Your task to perform on an android device: Go to location settings Image 0: 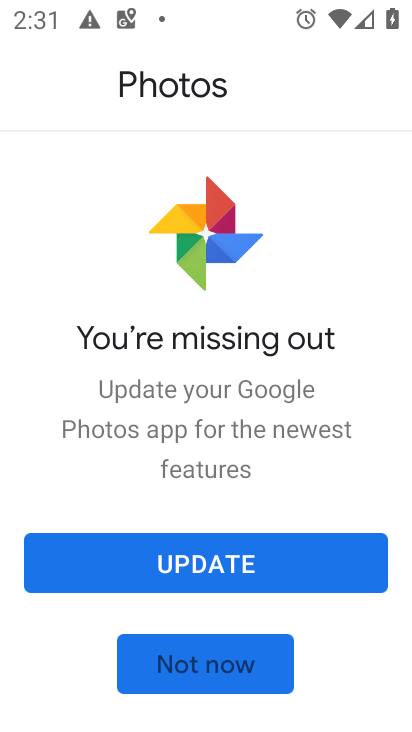
Step 0: press home button
Your task to perform on an android device: Go to location settings Image 1: 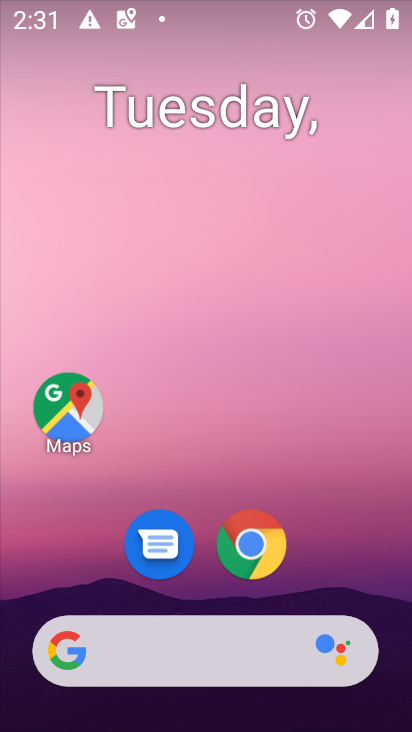
Step 1: drag from (320, 545) to (291, 47)
Your task to perform on an android device: Go to location settings Image 2: 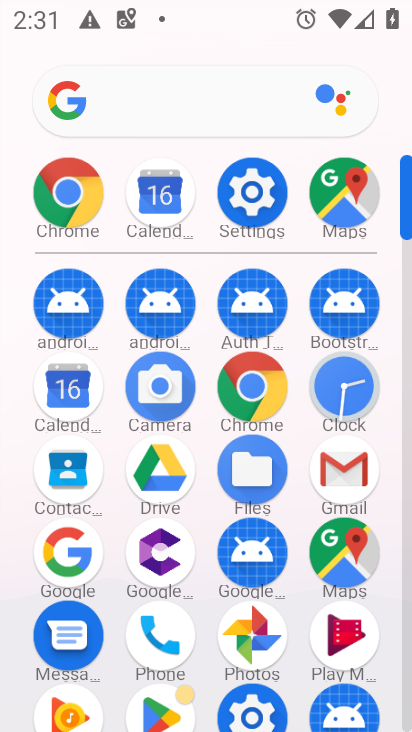
Step 2: click (253, 714)
Your task to perform on an android device: Go to location settings Image 3: 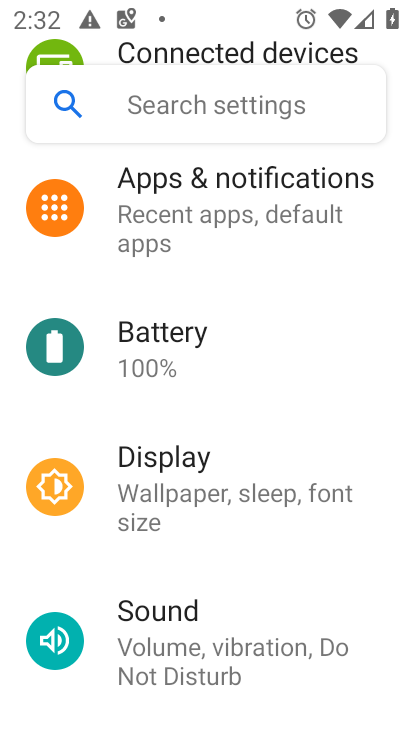
Step 3: drag from (217, 643) to (233, 178)
Your task to perform on an android device: Go to location settings Image 4: 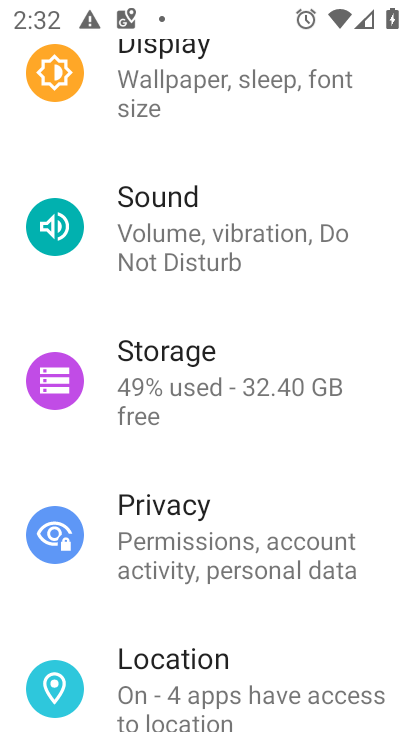
Step 4: click (199, 670)
Your task to perform on an android device: Go to location settings Image 5: 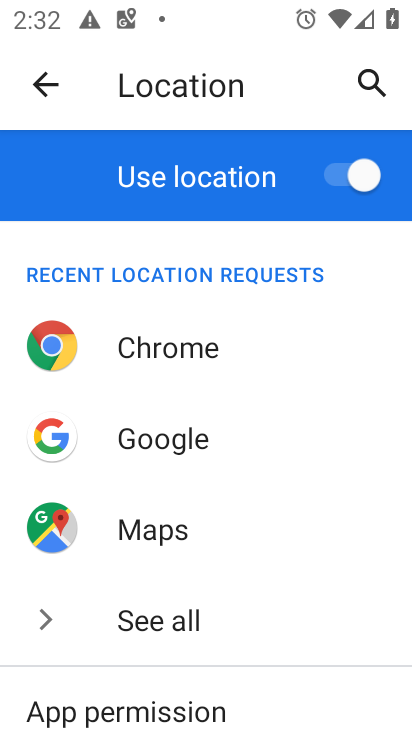
Step 5: task complete